Your task to perform on an android device: Open the calendar app, open the side menu, and click the "Day" option Image 0: 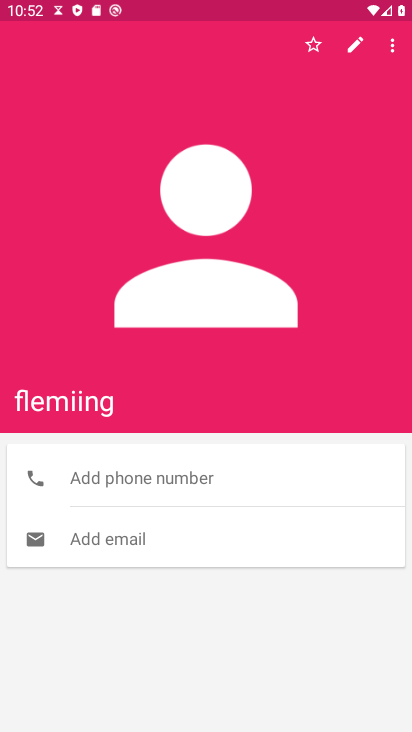
Step 0: press home button
Your task to perform on an android device: Open the calendar app, open the side menu, and click the "Day" option Image 1: 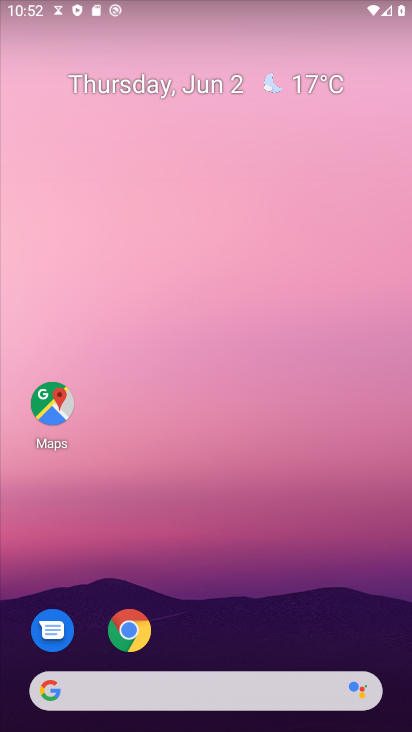
Step 1: drag from (228, 651) to (261, 245)
Your task to perform on an android device: Open the calendar app, open the side menu, and click the "Day" option Image 2: 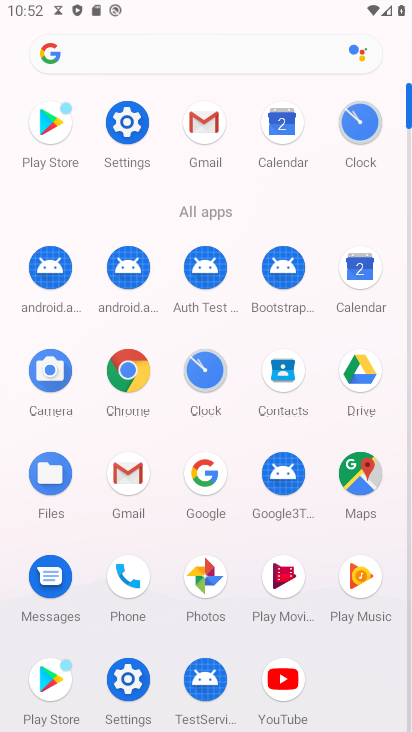
Step 2: click (373, 307)
Your task to perform on an android device: Open the calendar app, open the side menu, and click the "Day" option Image 3: 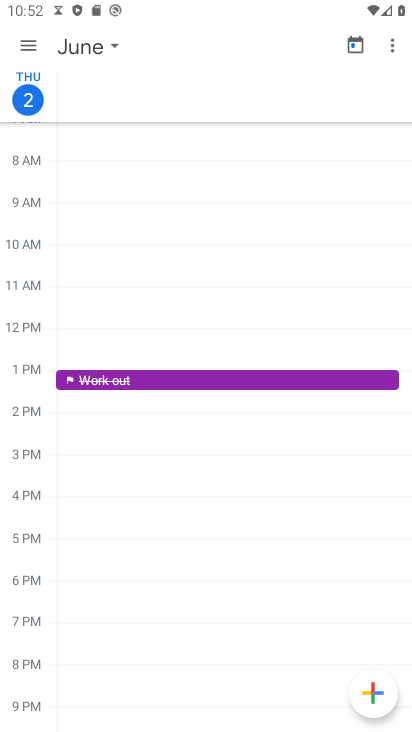
Step 3: click (29, 43)
Your task to perform on an android device: Open the calendar app, open the side menu, and click the "Day" option Image 4: 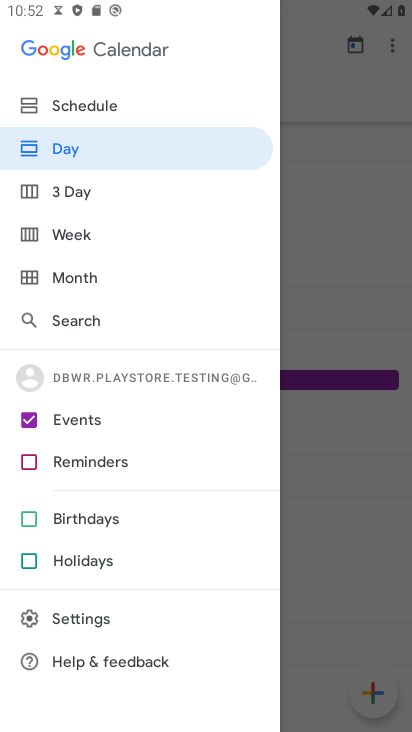
Step 4: click (145, 147)
Your task to perform on an android device: Open the calendar app, open the side menu, and click the "Day" option Image 5: 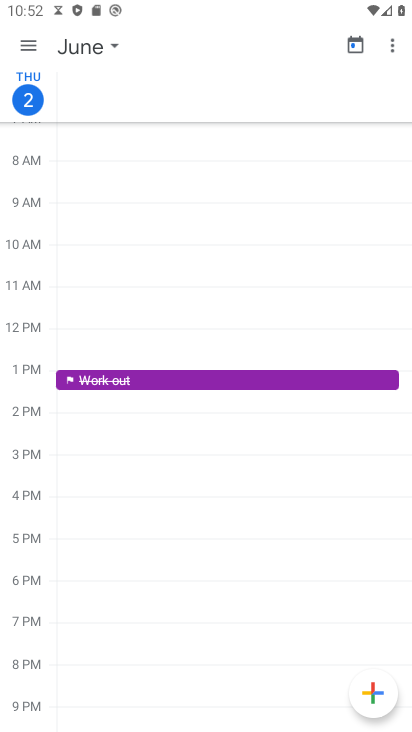
Step 5: task complete